Your task to perform on an android device: turn on location history Image 0: 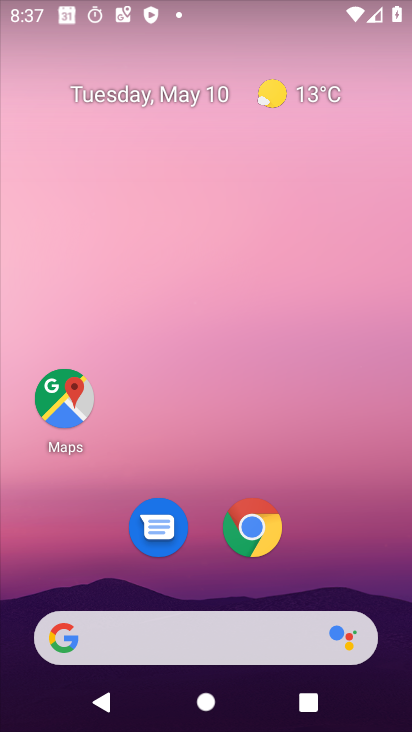
Step 0: drag from (16, 662) to (293, 124)
Your task to perform on an android device: turn on location history Image 1: 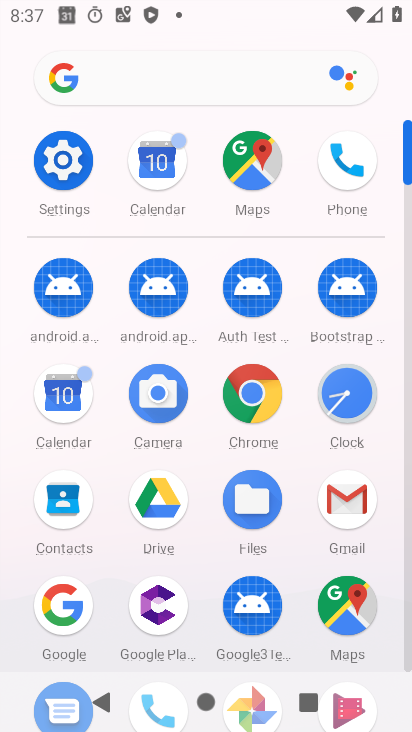
Step 1: click (77, 177)
Your task to perform on an android device: turn on location history Image 2: 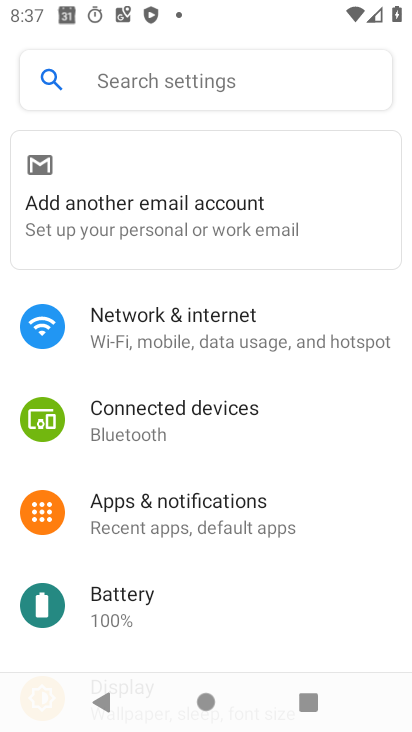
Step 2: drag from (156, 640) to (296, 192)
Your task to perform on an android device: turn on location history Image 3: 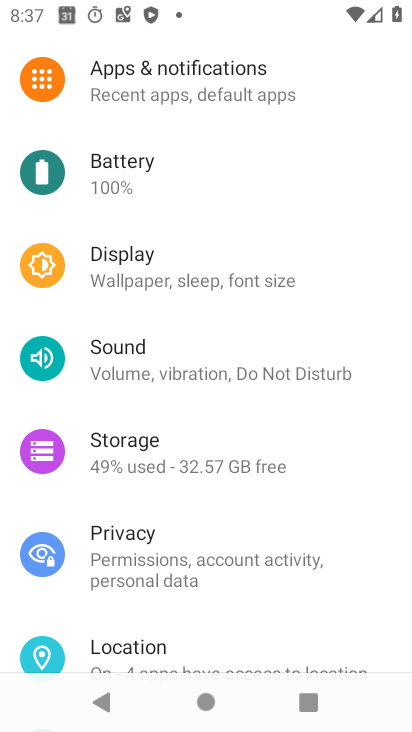
Step 3: click (107, 644)
Your task to perform on an android device: turn on location history Image 4: 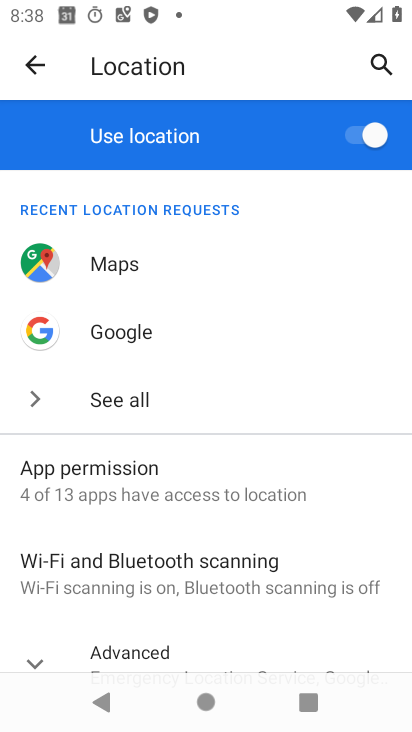
Step 4: click (381, 134)
Your task to perform on an android device: turn on location history Image 5: 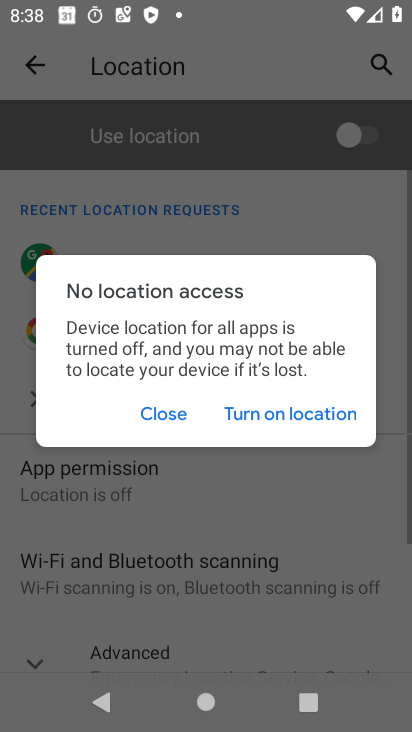
Step 5: task complete